Your task to perform on an android device: Open Chrome and go to the settings page Image 0: 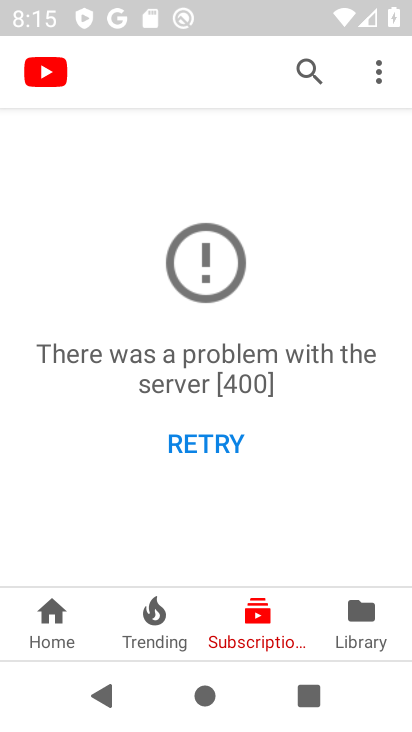
Step 0: press back button
Your task to perform on an android device: Open Chrome and go to the settings page Image 1: 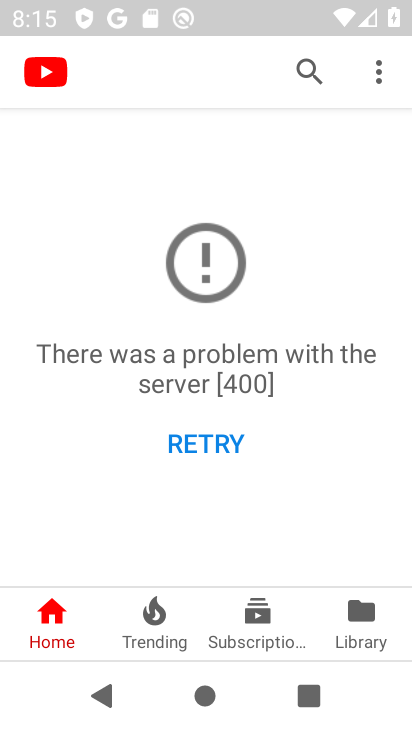
Step 1: press back button
Your task to perform on an android device: Open Chrome and go to the settings page Image 2: 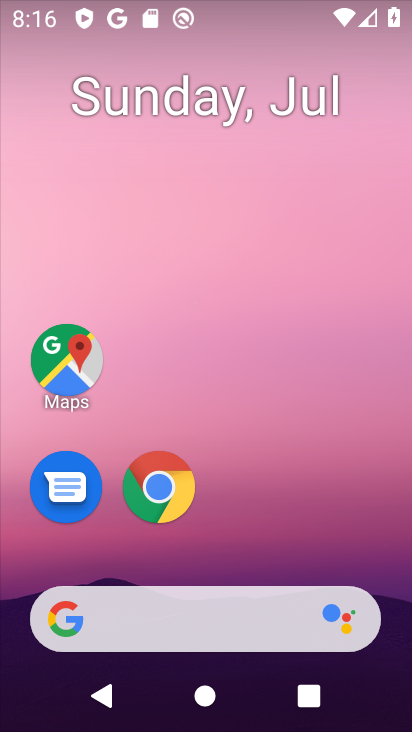
Step 2: click (184, 471)
Your task to perform on an android device: Open Chrome and go to the settings page Image 3: 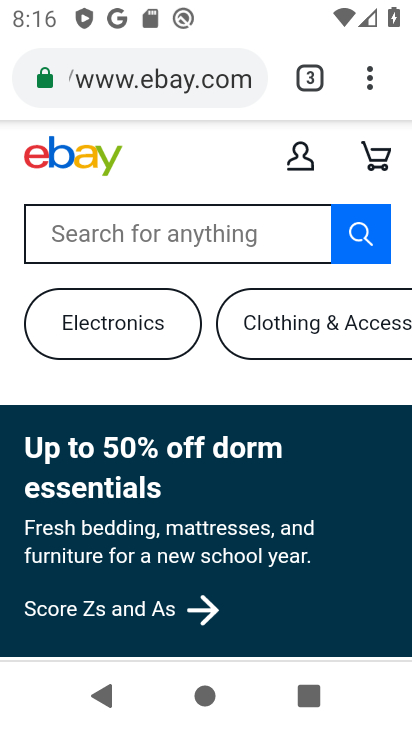
Step 3: click (363, 80)
Your task to perform on an android device: Open Chrome and go to the settings page Image 4: 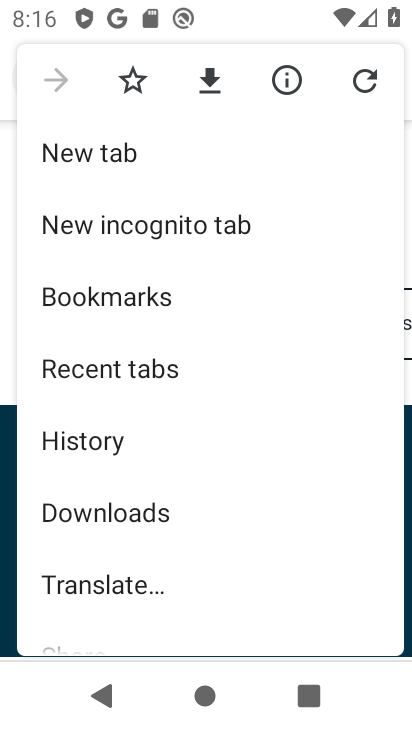
Step 4: drag from (121, 617) to (206, 1)
Your task to perform on an android device: Open Chrome and go to the settings page Image 5: 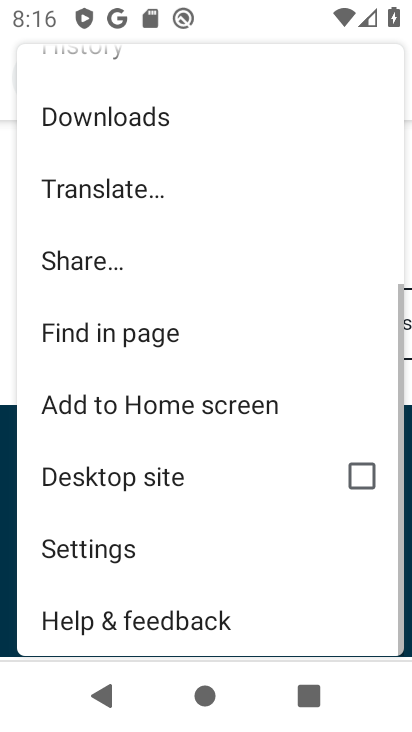
Step 5: click (132, 544)
Your task to perform on an android device: Open Chrome and go to the settings page Image 6: 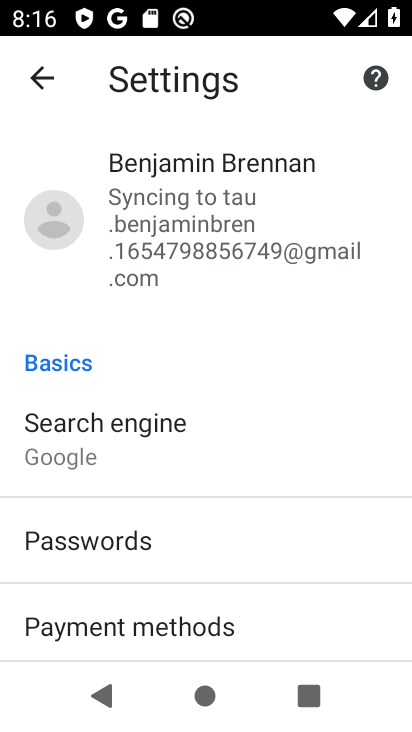
Step 6: task complete